Your task to perform on an android device: check storage Image 0: 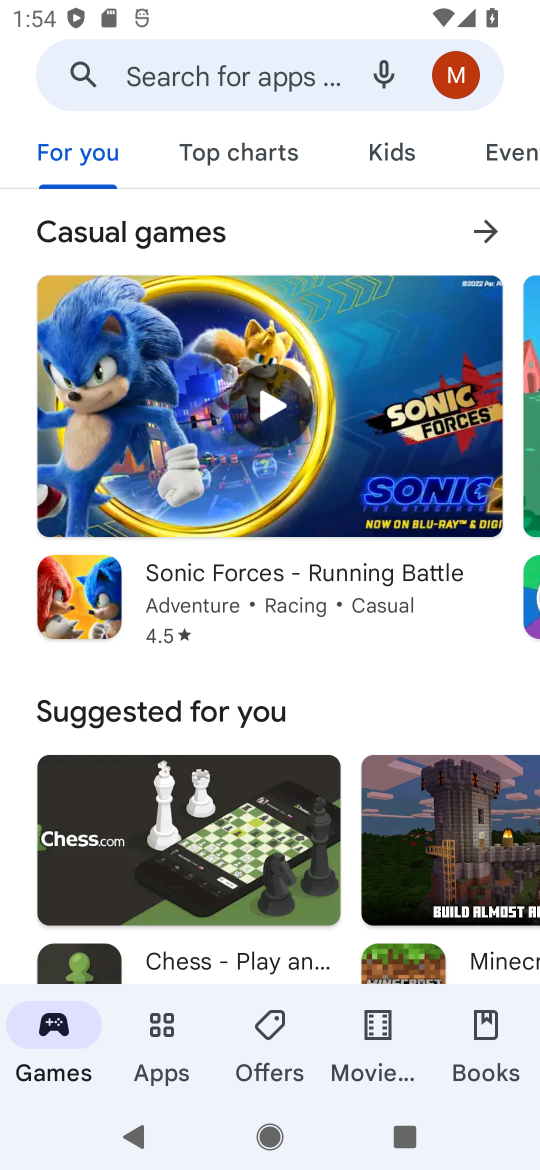
Step 0: press home button
Your task to perform on an android device: check storage Image 1: 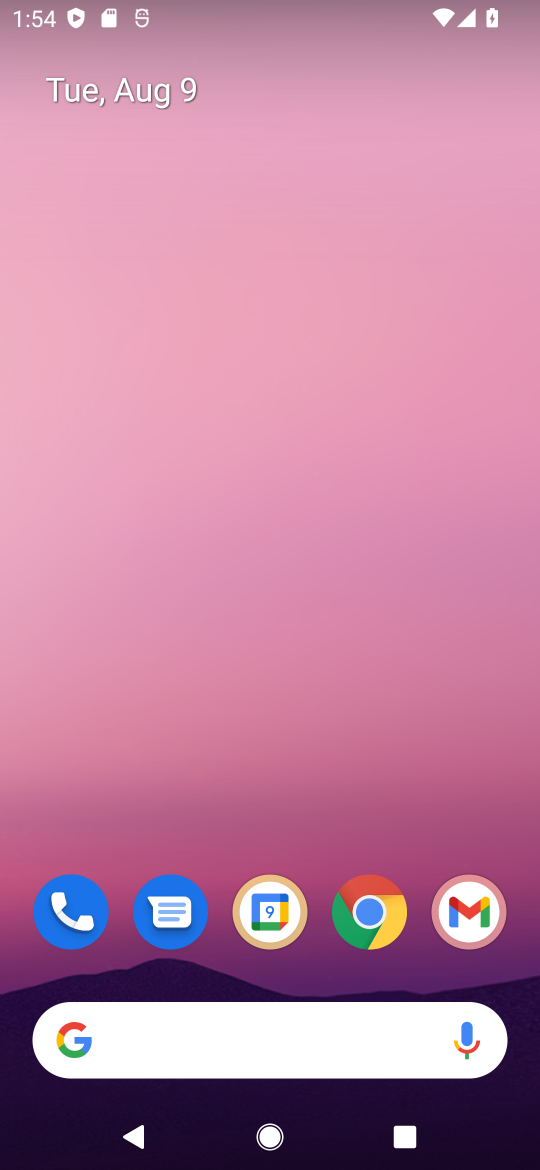
Step 1: drag from (272, 802) to (242, 359)
Your task to perform on an android device: check storage Image 2: 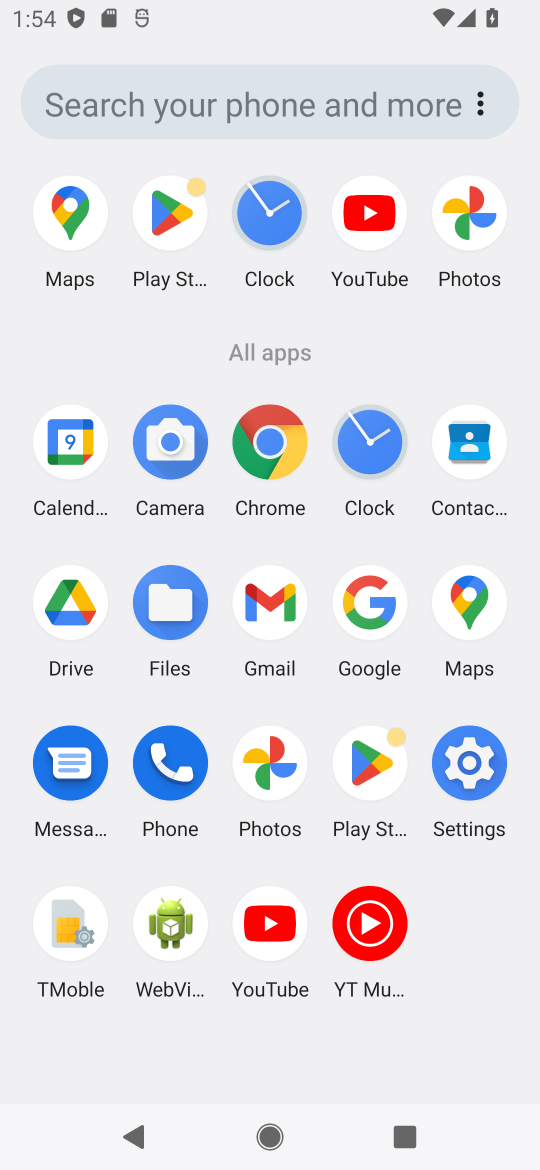
Step 2: click (468, 763)
Your task to perform on an android device: check storage Image 3: 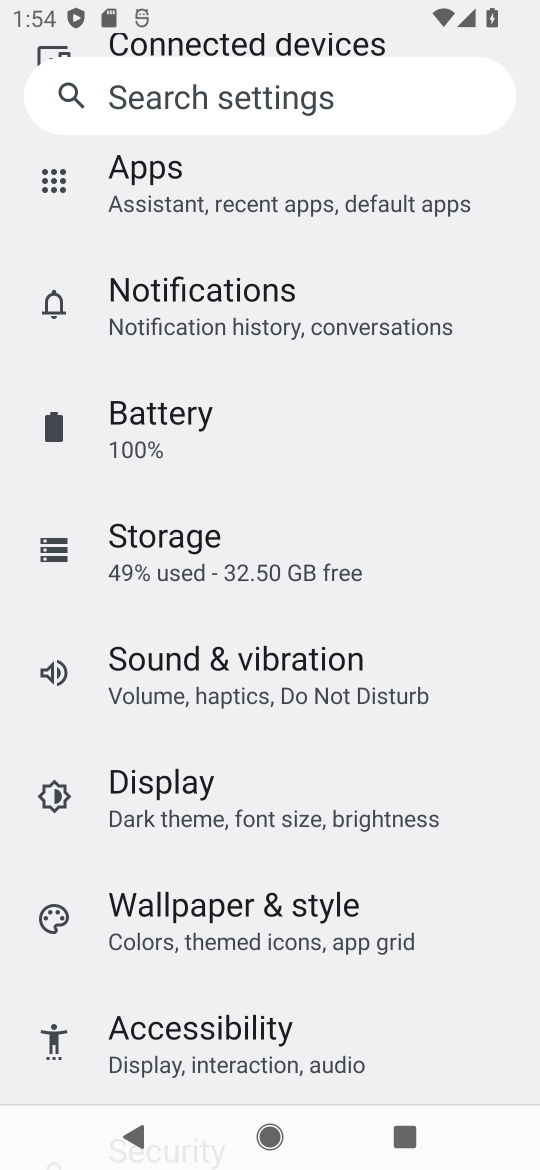
Step 3: click (179, 532)
Your task to perform on an android device: check storage Image 4: 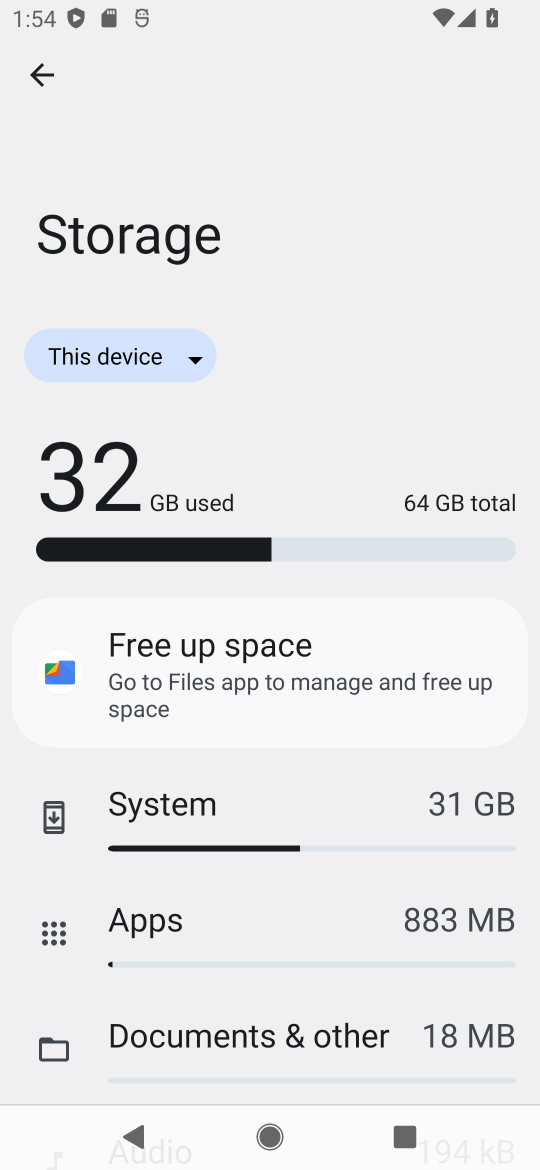
Step 4: task complete